Your task to perform on an android device: open app "Microsoft Authenticator" (install if not already installed) and enter user name: "Cornell@yahoo.com" and password: "bothersome" Image 0: 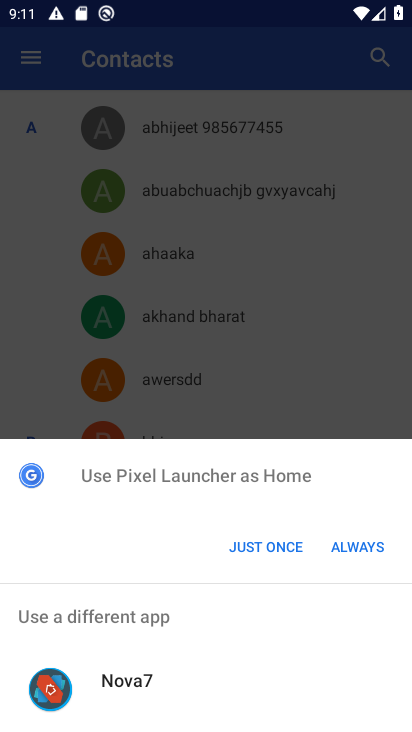
Step 0: press home button
Your task to perform on an android device: open app "Microsoft Authenticator" (install if not already installed) and enter user name: "Cornell@yahoo.com" and password: "bothersome" Image 1: 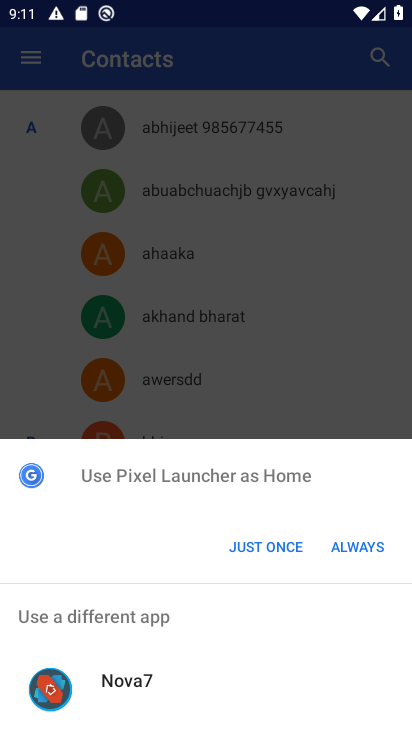
Step 1: click (294, 551)
Your task to perform on an android device: open app "Microsoft Authenticator" (install if not already installed) and enter user name: "Cornell@yahoo.com" and password: "bothersome" Image 2: 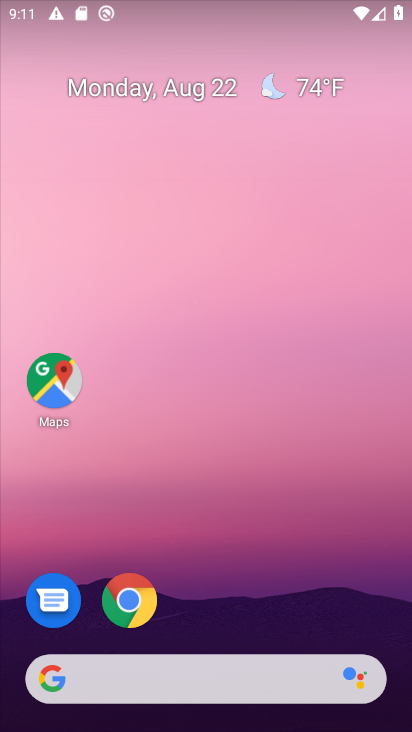
Step 2: drag from (244, 595) to (271, 35)
Your task to perform on an android device: open app "Microsoft Authenticator" (install if not already installed) and enter user name: "Cornell@yahoo.com" and password: "bothersome" Image 3: 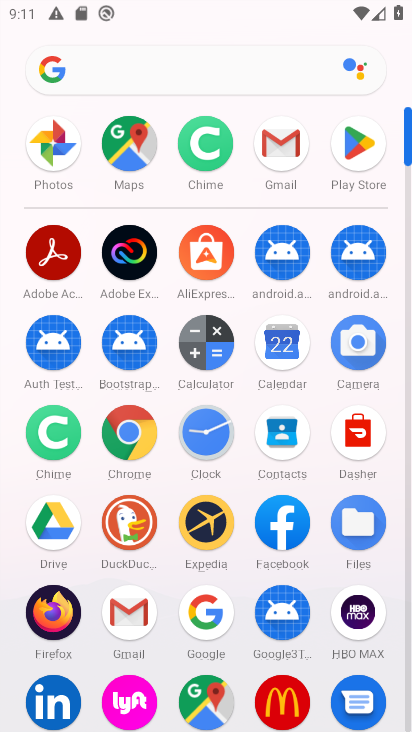
Step 3: click (359, 156)
Your task to perform on an android device: open app "Microsoft Authenticator" (install if not already installed) and enter user name: "Cornell@yahoo.com" and password: "bothersome" Image 4: 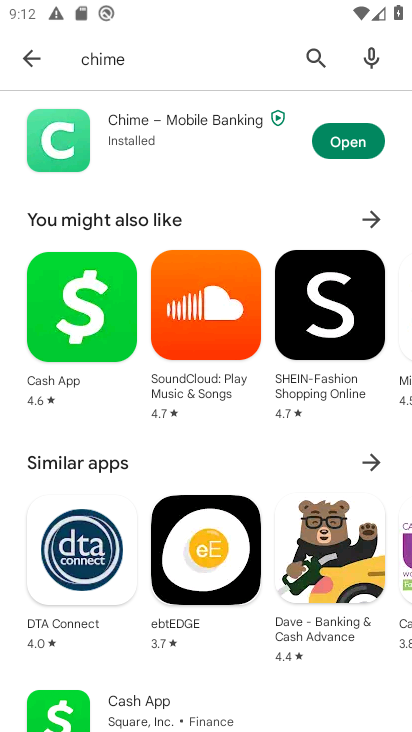
Step 4: click (317, 53)
Your task to perform on an android device: open app "Microsoft Authenticator" (install if not already installed) and enter user name: "Cornell@yahoo.com" and password: "bothersome" Image 5: 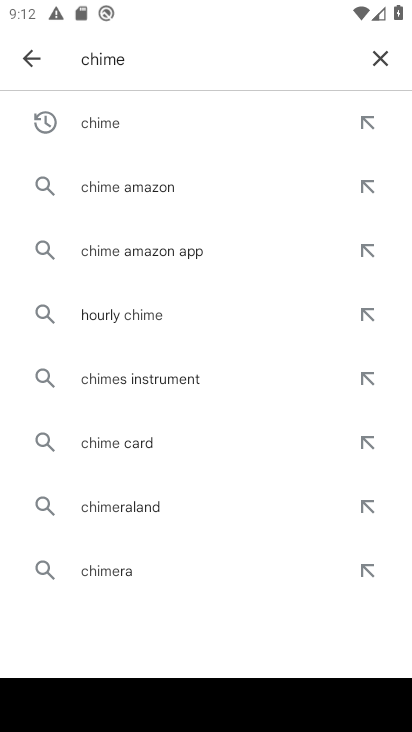
Step 5: click (375, 61)
Your task to perform on an android device: open app "Microsoft Authenticator" (install if not already installed) and enter user name: "Cornell@yahoo.com" and password: "bothersome" Image 6: 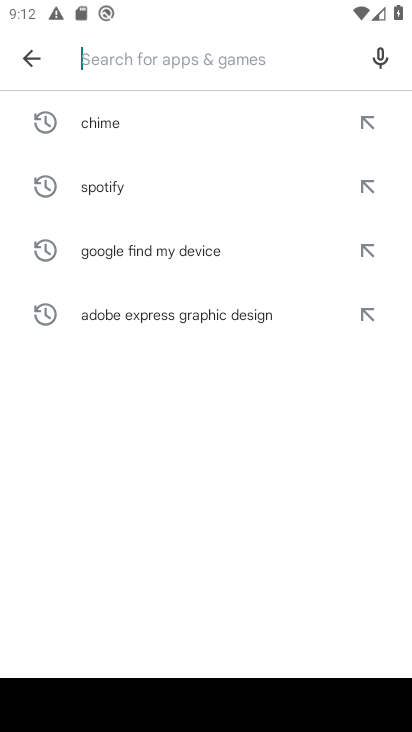
Step 6: type "Microsoft Authenticator"
Your task to perform on an android device: open app "Microsoft Authenticator" (install if not already installed) and enter user name: "Cornell@yahoo.com" and password: "bothersome" Image 7: 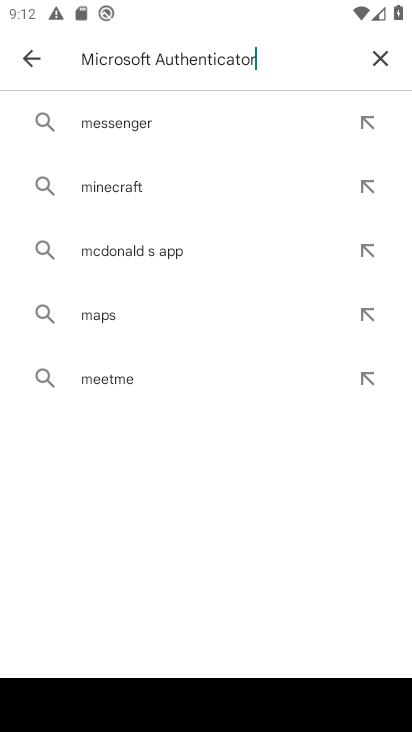
Step 7: type ""
Your task to perform on an android device: open app "Microsoft Authenticator" (install if not already installed) and enter user name: "Cornell@yahoo.com" and password: "bothersome" Image 8: 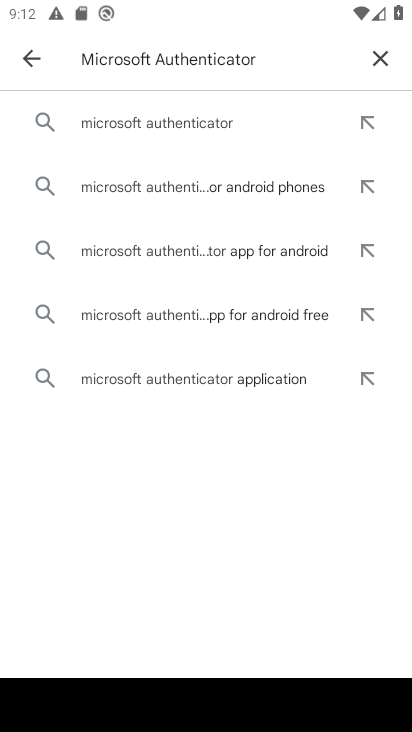
Step 8: click (234, 121)
Your task to perform on an android device: open app "Microsoft Authenticator" (install if not already installed) and enter user name: "Cornell@yahoo.com" and password: "bothersome" Image 9: 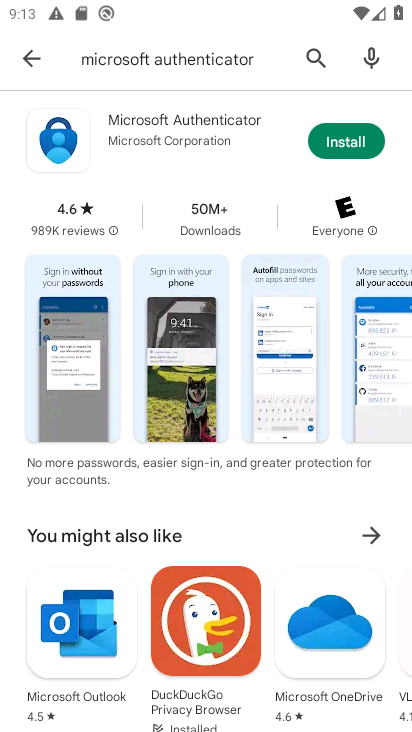
Step 9: click (342, 149)
Your task to perform on an android device: open app "Microsoft Authenticator" (install if not already installed) and enter user name: "Cornell@yahoo.com" and password: "bothersome" Image 10: 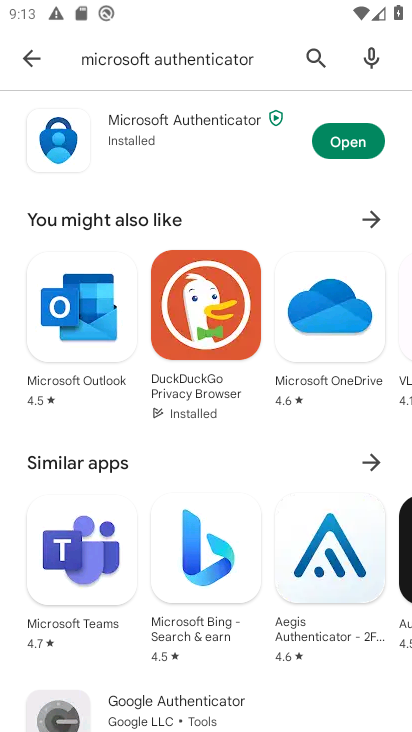
Step 10: click (342, 149)
Your task to perform on an android device: open app "Microsoft Authenticator" (install if not already installed) and enter user name: "Cornell@yahoo.com" and password: "bothersome" Image 11: 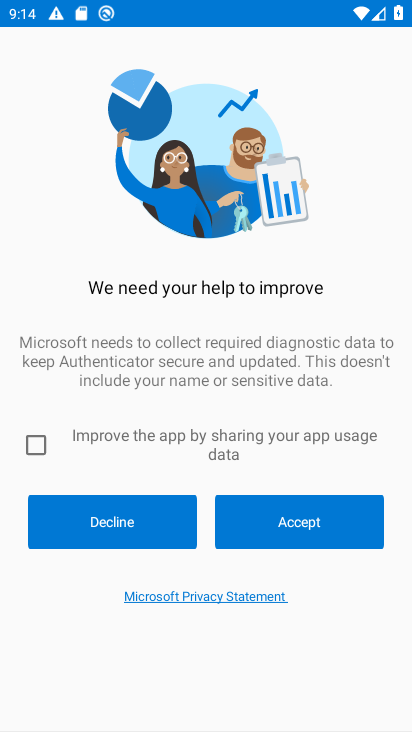
Step 11: task complete